Your task to perform on an android device: check android version Image 0: 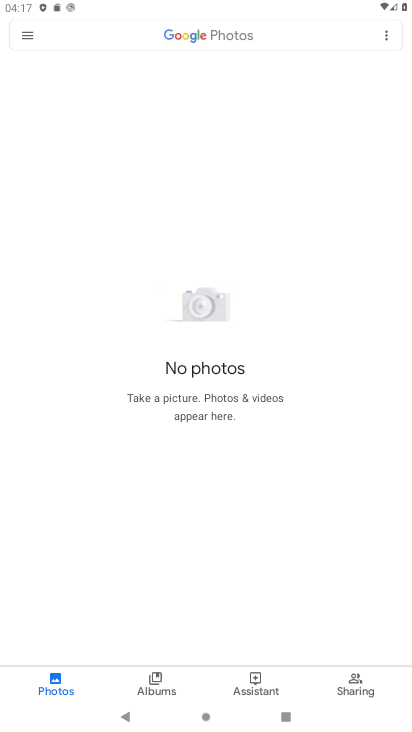
Step 0: press home button
Your task to perform on an android device: check android version Image 1: 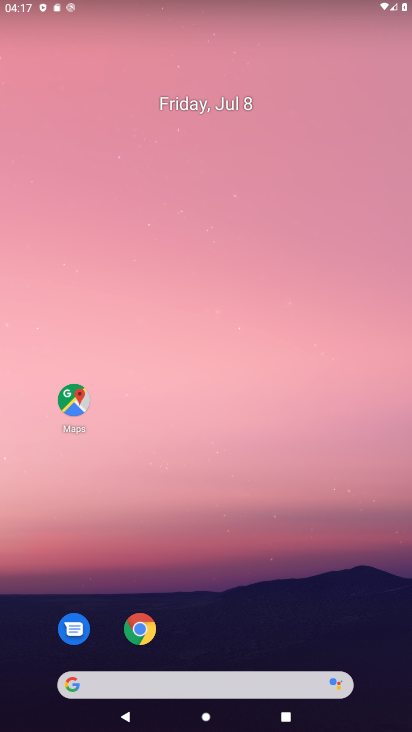
Step 1: drag from (246, 712) to (241, 80)
Your task to perform on an android device: check android version Image 2: 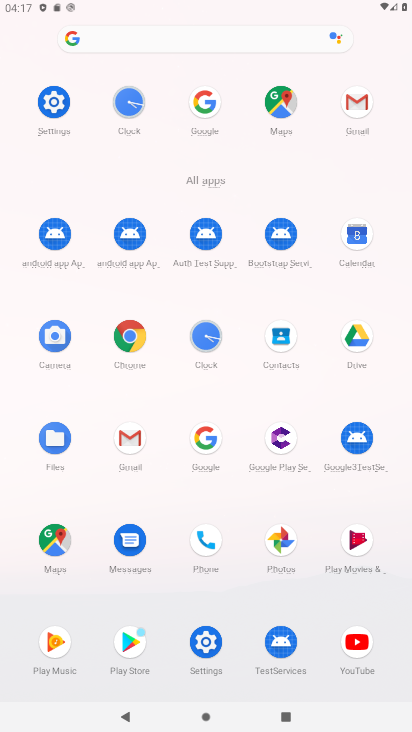
Step 2: click (49, 99)
Your task to perform on an android device: check android version Image 3: 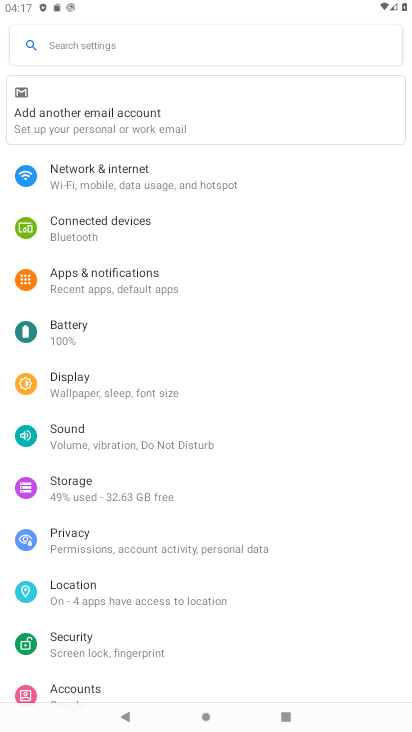
Step 3: drag from (157, 658) to (158, 195)
Your task to perform on an android device: check android version Image 4: 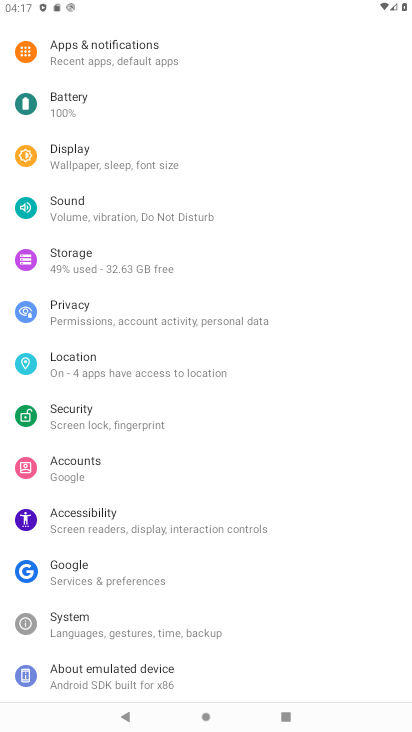
Step 4: click (117, 663)
Your task to perform on an android device: check android version Image 5: 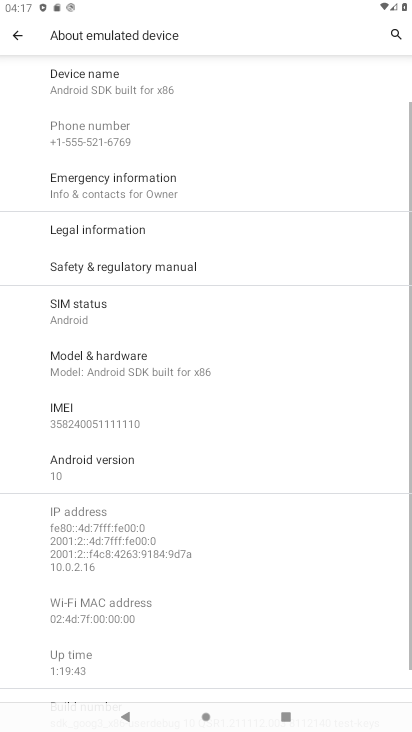
Step 5: click (116, 459)
Your task to perform on an android device: check android version Image 6: 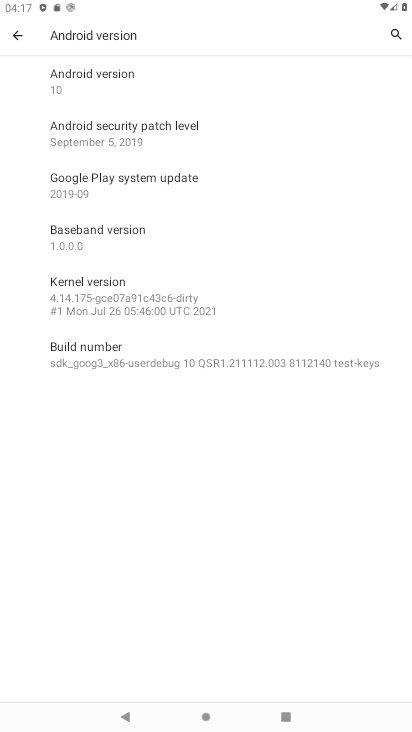
Step 6: task complete